Your task to perform on an android device: delete location history Image 0: 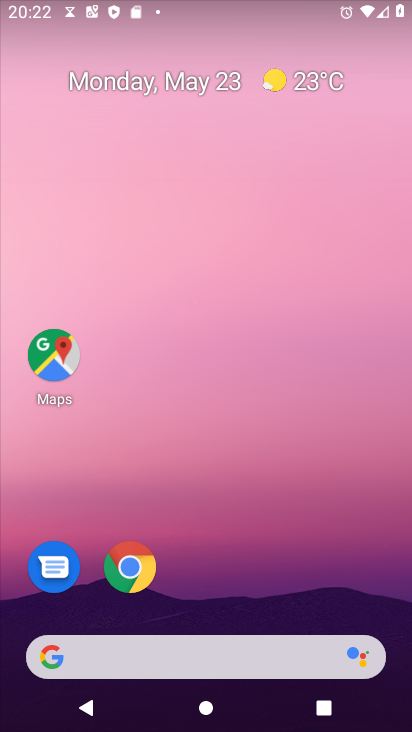
Step 0: drag from (276, 599) to (302, 213)
Your task to perform on an android device: delete location history Image 1: 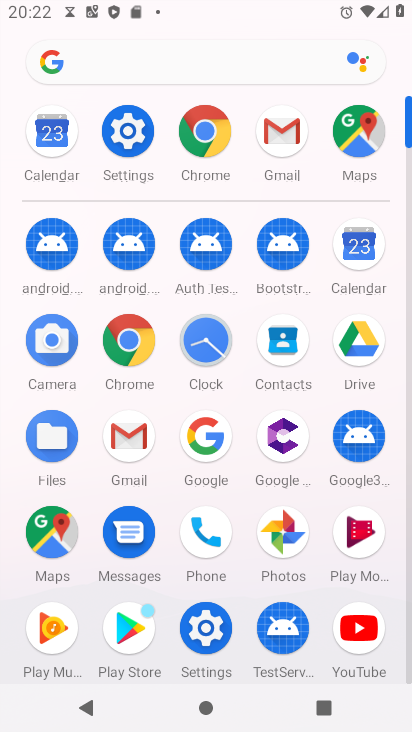
Step 1: click (42, 520)
Your task to perform on an android device: delete location history Image 2: 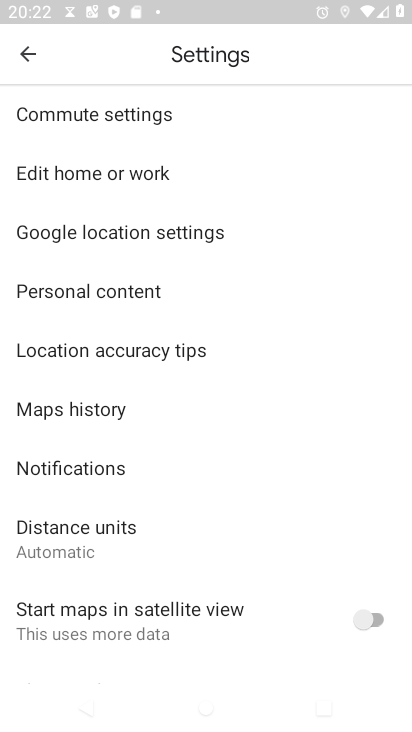
Step 2: click (19, 66)
Your task to perform on an android device: delete location history Image 3: 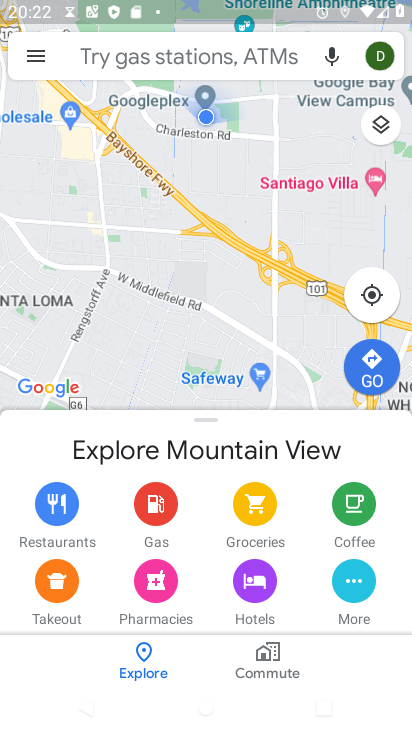
Step 3: click (34, 58)
Your task to perform on an android device: delete location history Image 4: 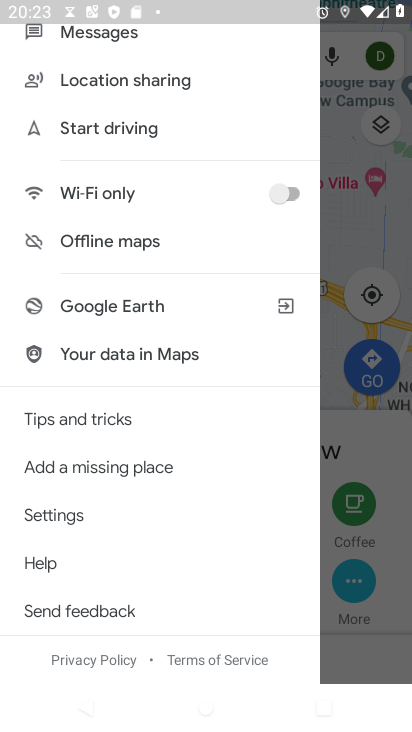
Step 4: drag from (210, 75) to (252, 637)
Your task to perform on an android device: delete location history Image 5: 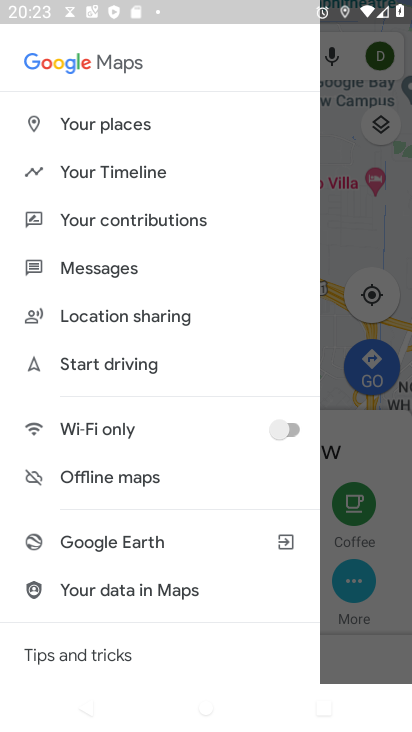
Step 5: click (131, 168)
Your task to perform on an android device: delete location history Image 6: 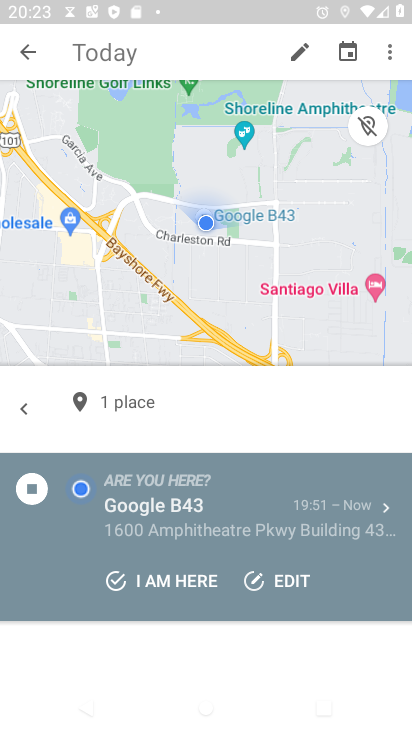
Step 6: click (392, 55)
Your task to perform on an android device: delete location history Image 7: 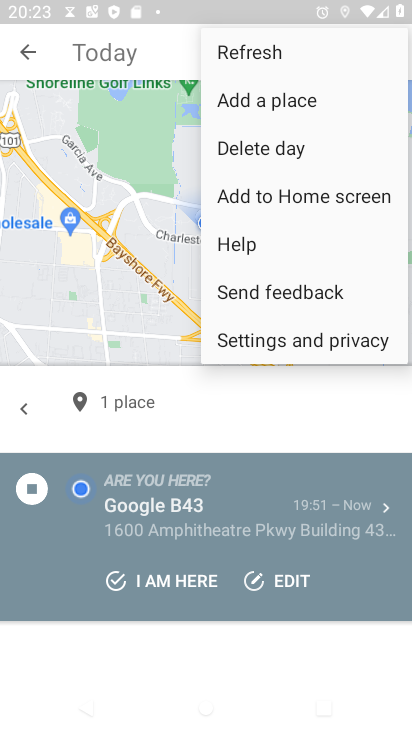
Step 7: click (287, 330)
Your task to perform on an android device: delete location history Image 8: 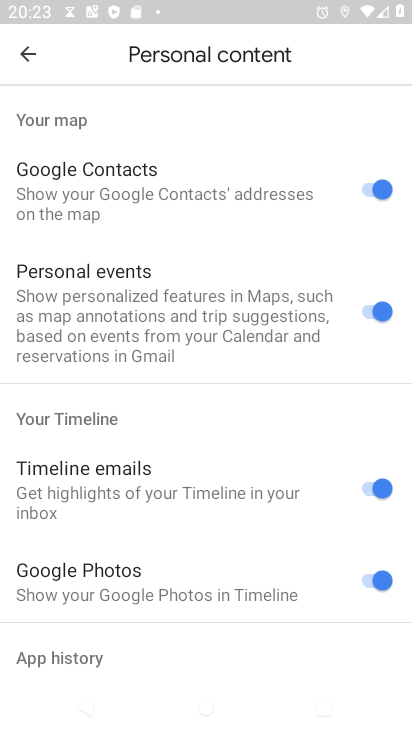
Step 8: drag from (217, 600) to (278, 150)
Your task to perform on an android device: delete location history Image 9: 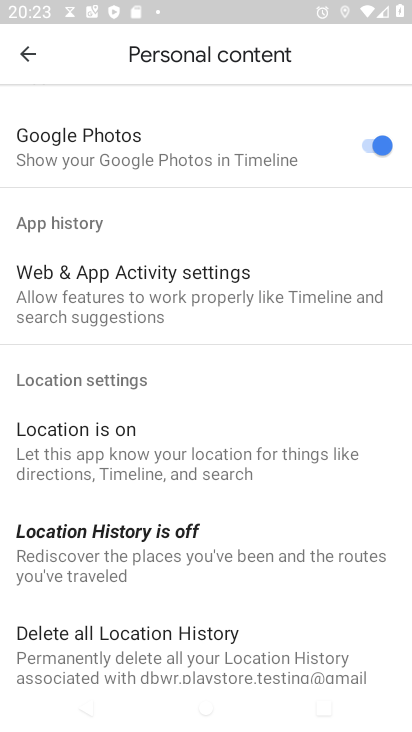
Step 9: drag from (264, 567) to (280, 311)
Your task to perform on an android device: delete location history Image 10: 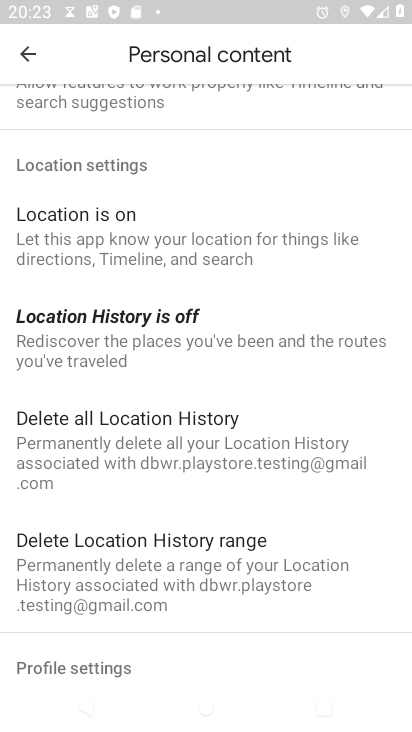
Step 10: click (203, 429)
Your task to perform on an android device: delete location history Image 11: 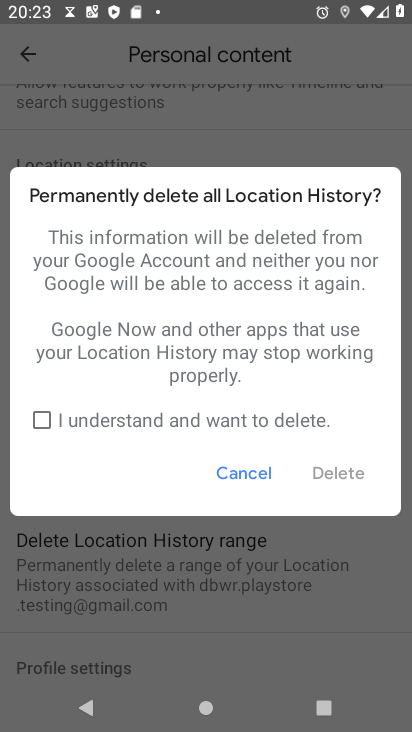
Step 11: click (103, 409)
Your task to perform on an android device: delete location history Image 12: 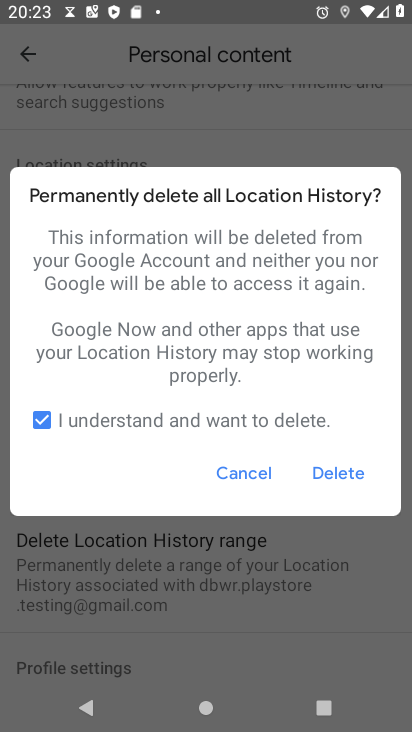
Step 12: click (342, 477)
Your task to perform on an android device: delete location history Image 13: 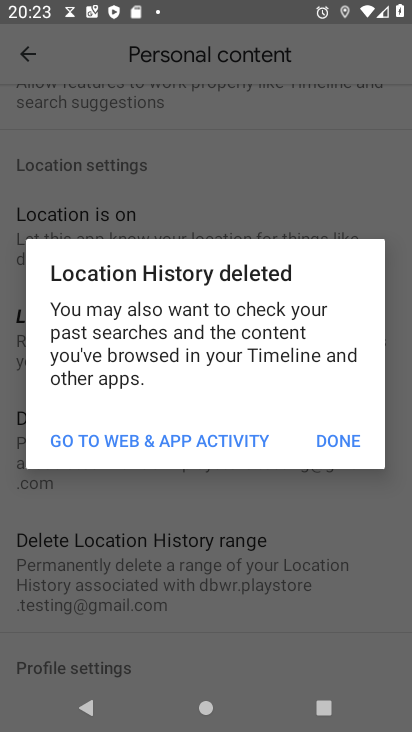
Step 13: click (319, 441)
Your task to perform on an android device: delete location history Image 14: 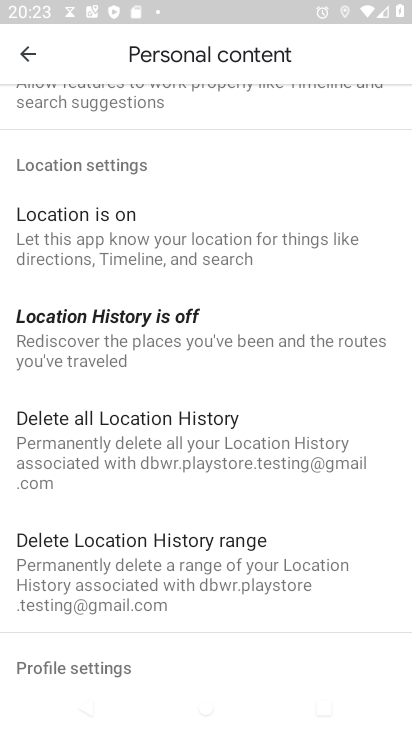
Step 14: task complete